Your task to perform on an android device: Go to display settings Image 0: 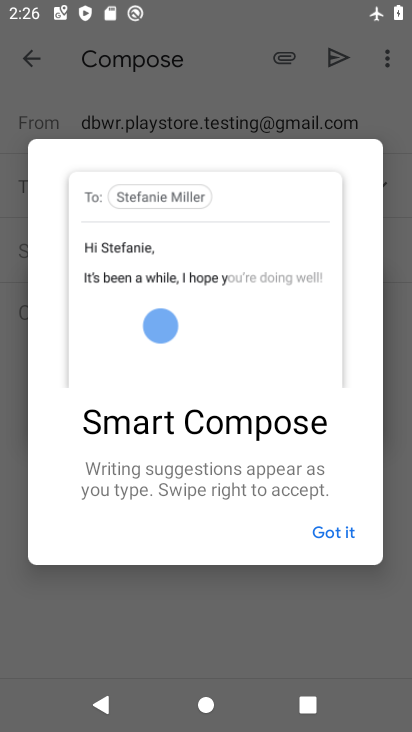
Step 0: press home button
Your task to perform on an android device: Go to display settings Image 1: 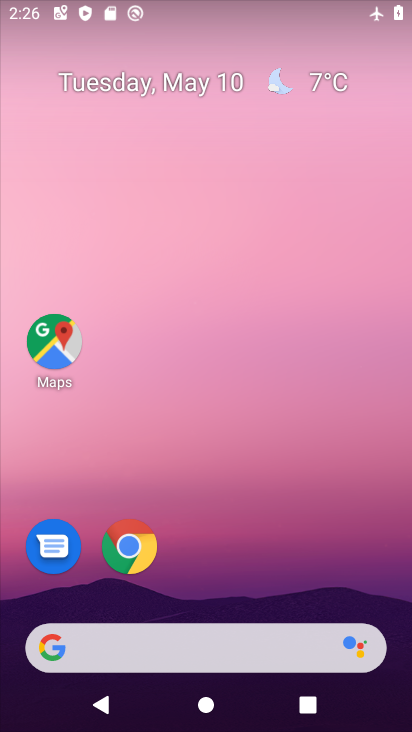
Step 1: click (410, 514)
Your task to perform on an android device: Go to display settings Image 2: 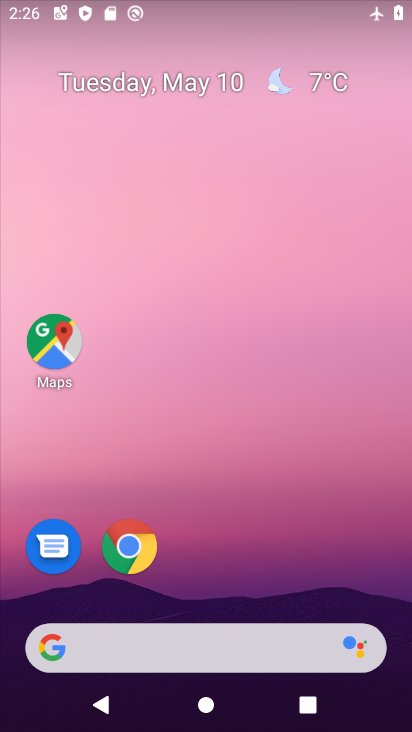
Step 2: drag from (332, 542) to (347, 126)
Your task to perform on an android device: Go to display settings Image 3: 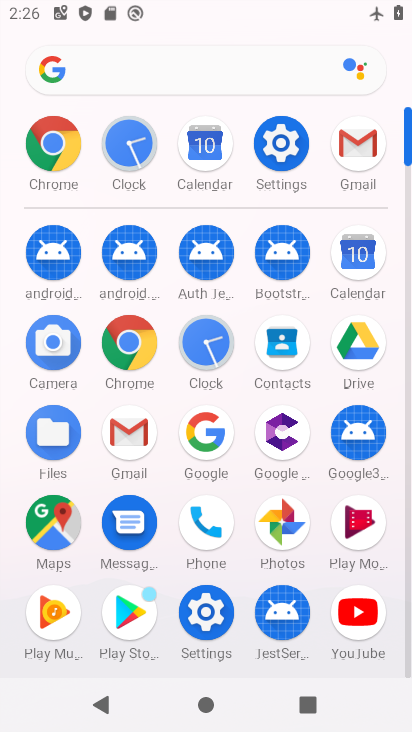
Step 3: click (306, 150)
Your task to perform on an android device: Go to display settings Image 4: 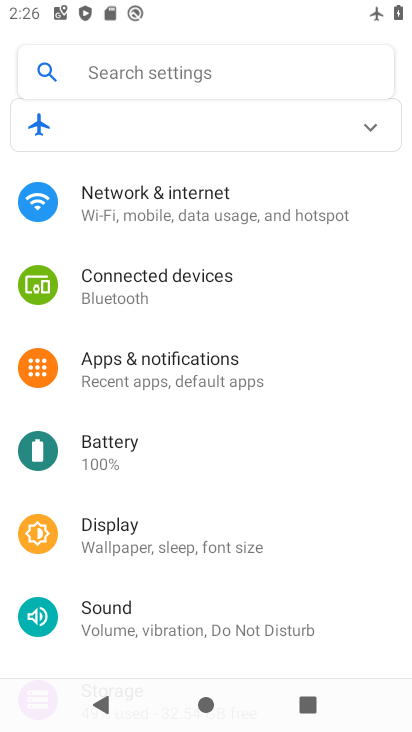
Step 4: click (139, 536)
Your task to perform on an android device: Go to display settings Image 5: 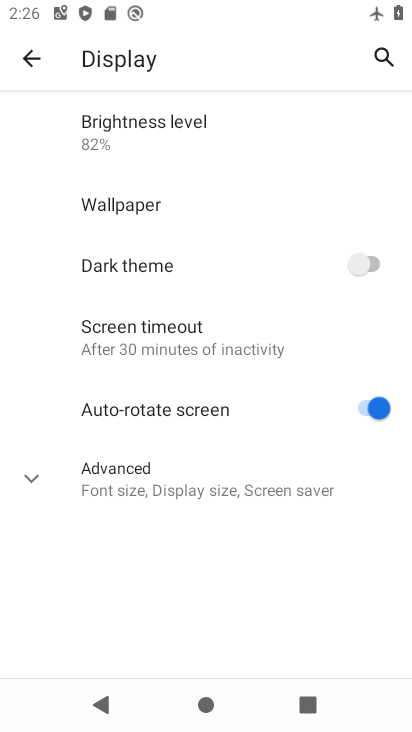
Step 5: task complete